Your task to perform on an android device: turn on sleep mode Image 0: 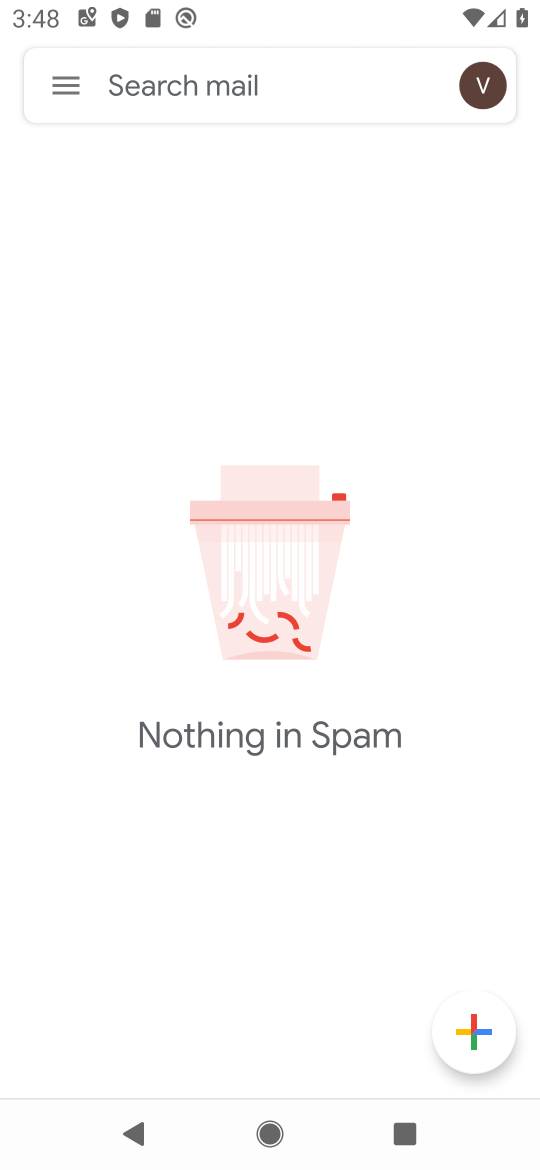
Step 0: press home button
Your task to perform on an android device: turn on sleep mode Image 1: 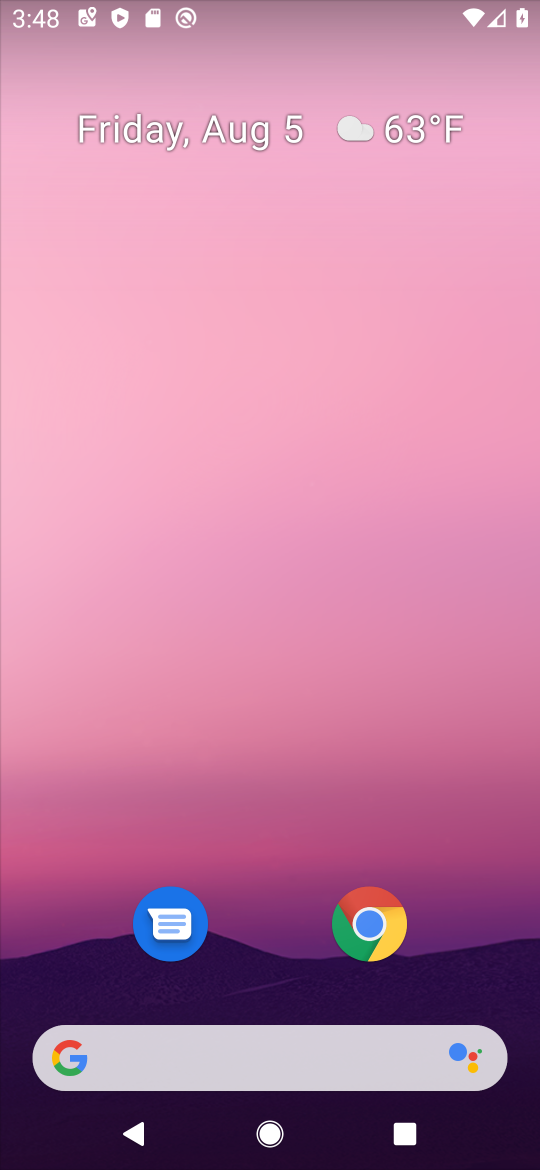
Step 1: drag from (252, 874) to (251, 179)
Your task to perform on an android device: turn on sleep mode Image 2: 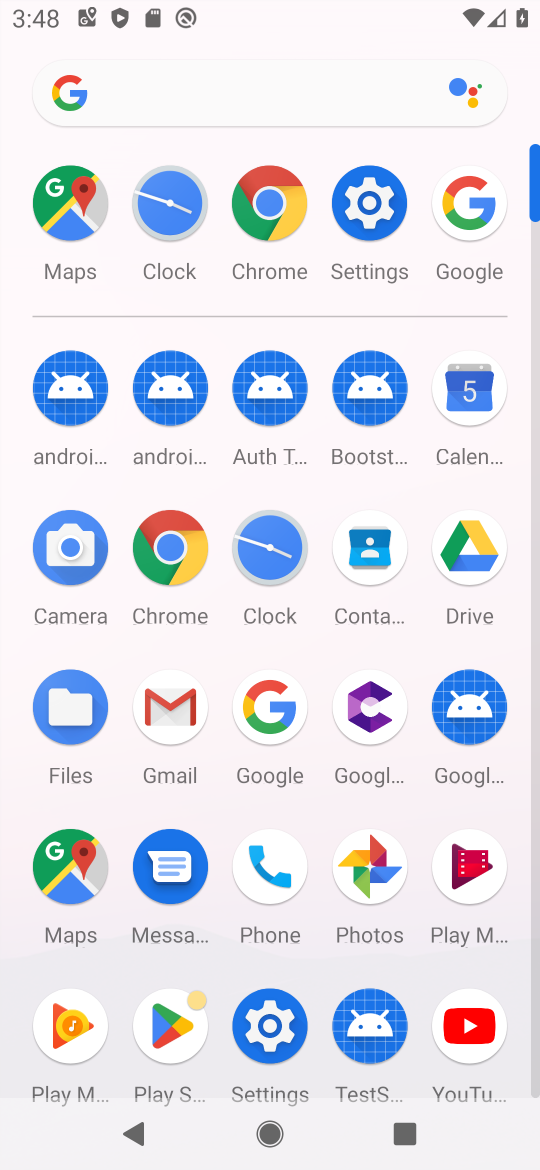
Step 2: click (272, 1029)
Your task to perform on an android device: turn on sleep mode Image 3: 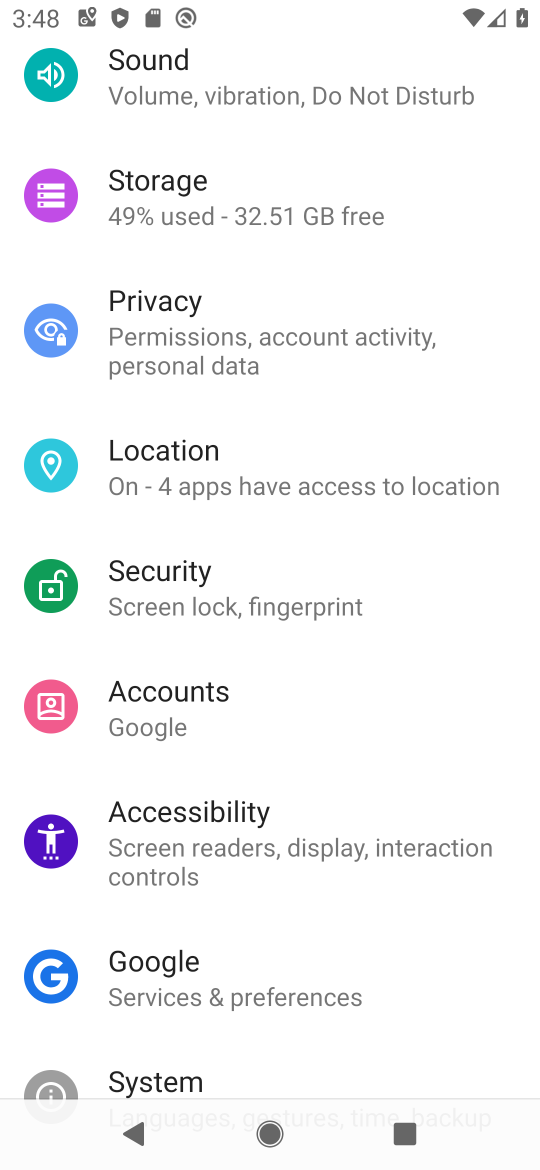
Step 3: task complete